Your task to perform on an android device: delete a single message in the gmail app Image 0: 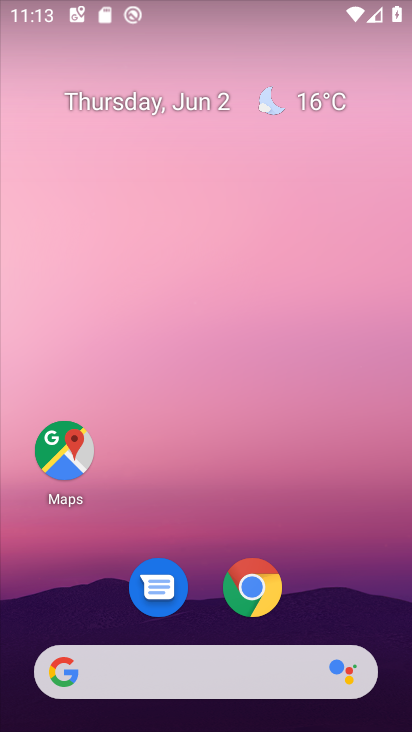
Step 0: drag from (239, 487) to (267, 39)
Your task to perform on an android device: delete a single message in the gmail app Image 1: 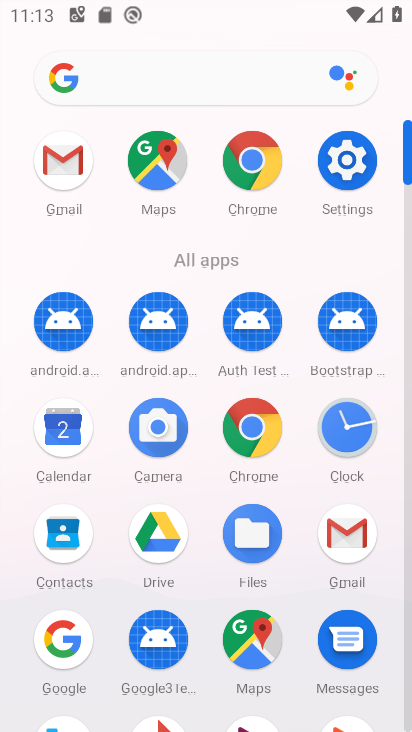
Step 1: click (72, 166)
Your task to perform on an android device: delete a single message in the gmail app Image 2: 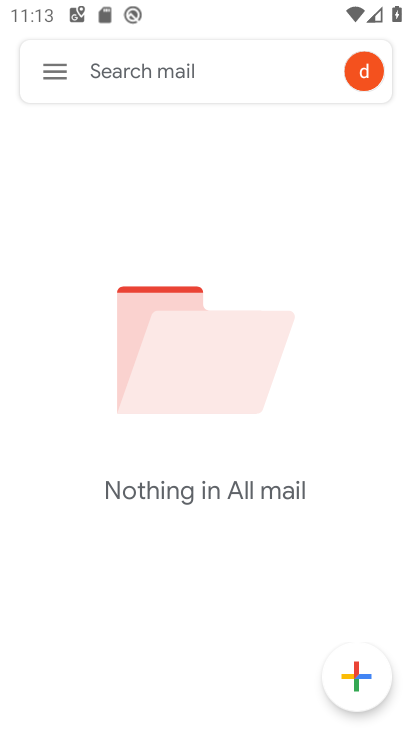
Step 2: task complete